Your task to perform on an android device: Open display settings Image 0: 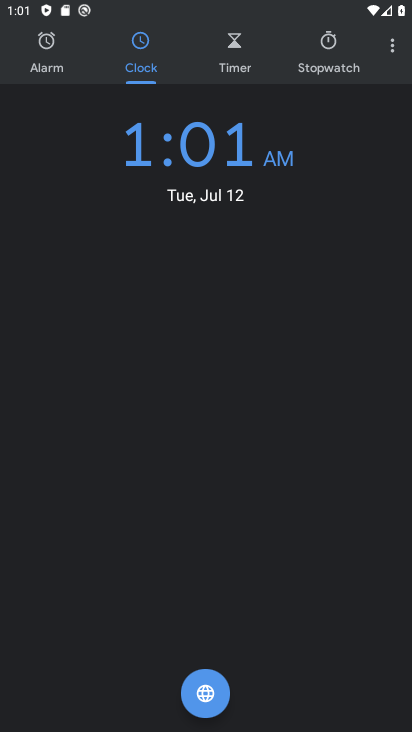
Step 0: press home button
Your task to perform on an android device: Open display settings Image 1: 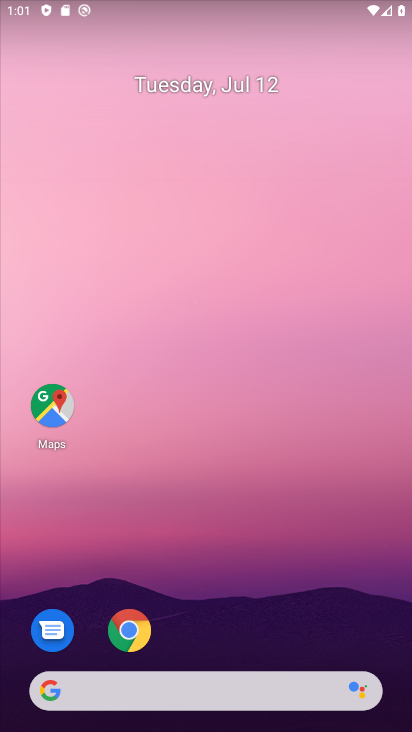
Step 1: drag from (192, 565) to (178, 178)
Your task to perform on an android device: Open display settings Image 2: 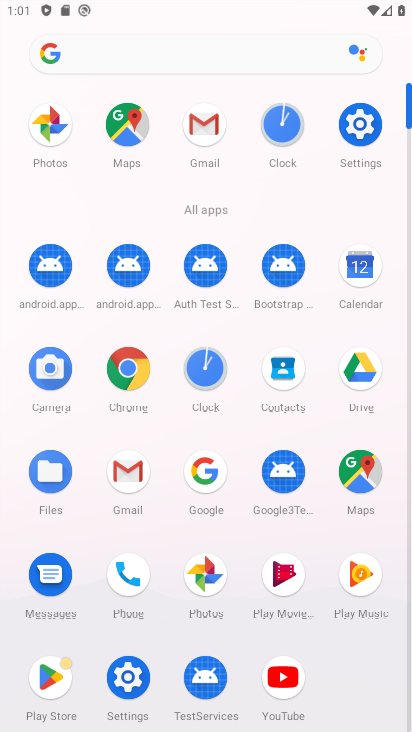
Step 2: click (365, 128)
Your task to perform on an android device: Open display settings Image 3: 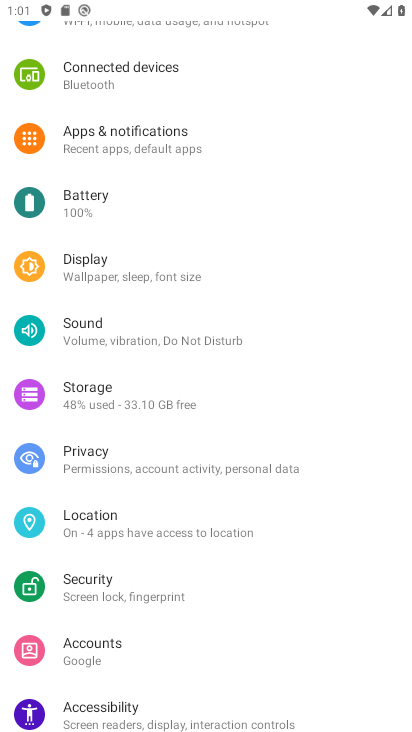
Step 3: click (90, 261)
Your task to perform on an android device: Open display settings Image 4: 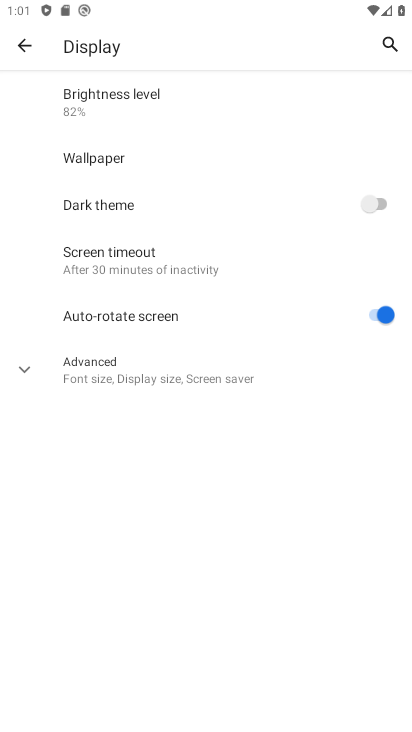
Step 4: task complete